Your task to perform on an android device: change the clock display to analog Image 0: 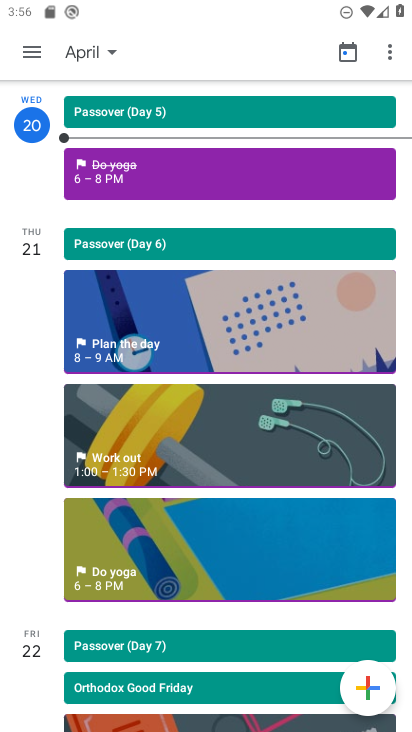
Step 0: press home button
Your task to perform on an android device: change the clock display to analog Image 1: 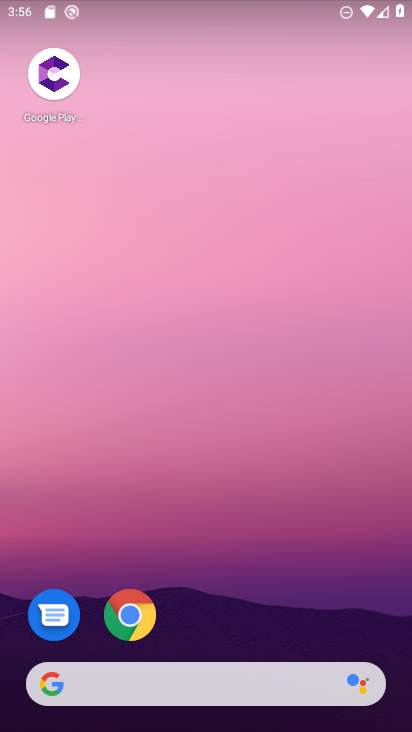
Step 1: drag from (248, 587) to (243, 78)
Your task to perform on an android device: change the clock display to analog Image 2: 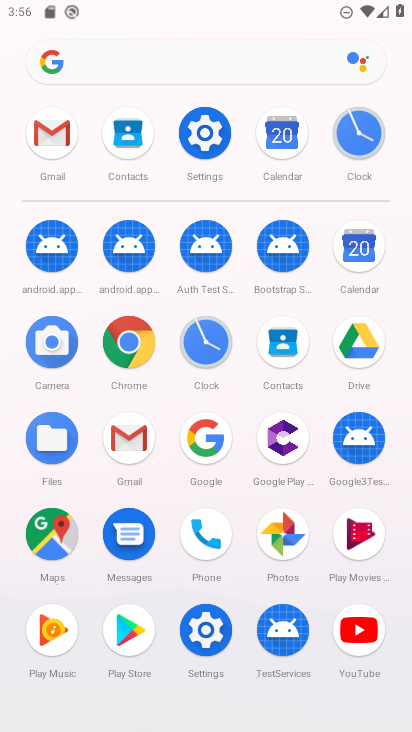
Step 2: click (362, 142)
Your task to perform on an android device: change the clock display to analog Image 3: 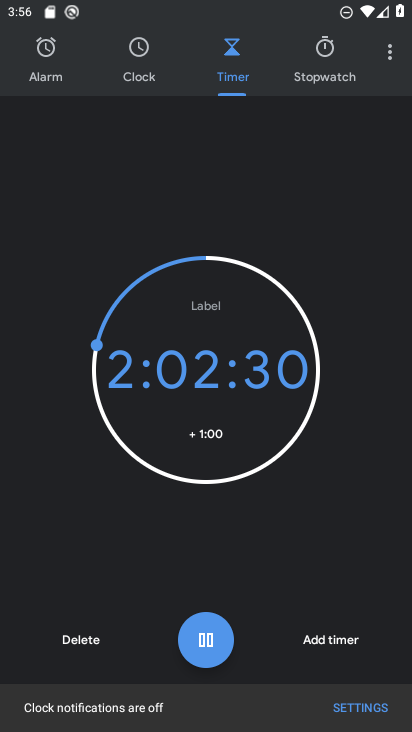
Step 3: click (390, 56)
Your task to perform on an android device: change the clock display to analog Image 4: 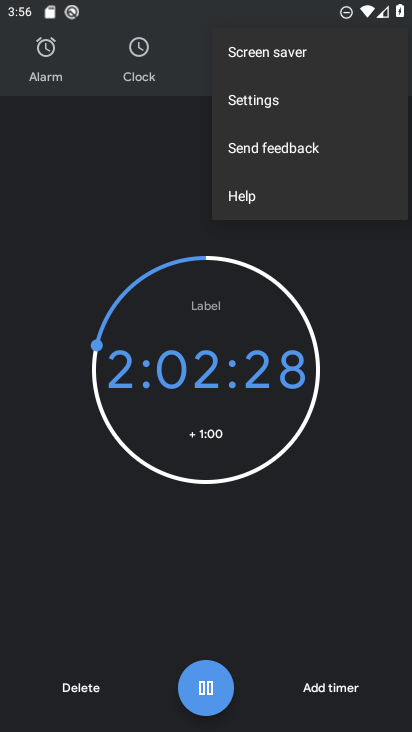
Step 4: click (268, 89)
Your task to perform on an android device: change the clock display to analog Image 5: 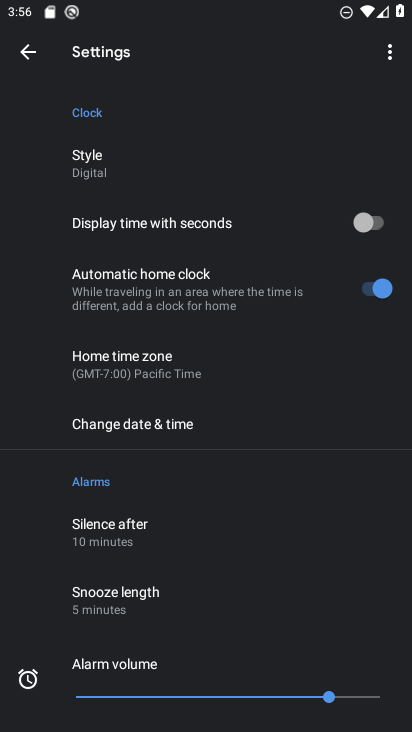
Step 5: click (101, 170)
Your task to perform on an android device: change the clock display to analog Image 6: 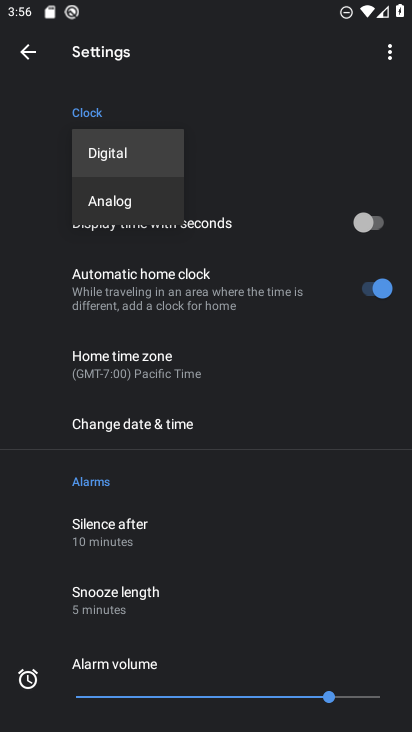
Step 6: click (132, 198)
Your task to perform on an android device: change the clock display to analog Image 7: 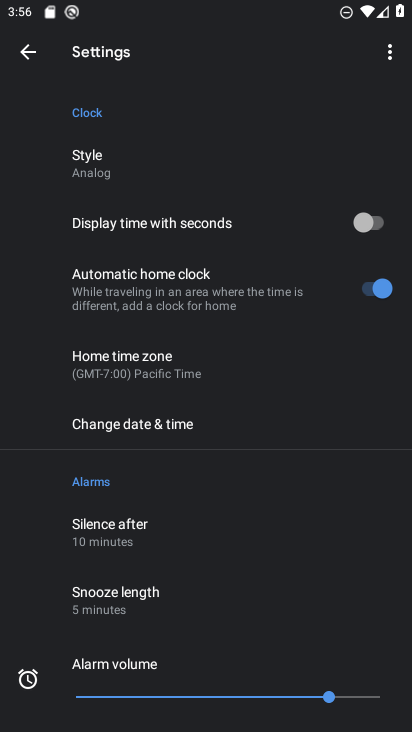
Step 7: task complete